Your task to perform on an android device: Do I have any events this weekend? Image 0: 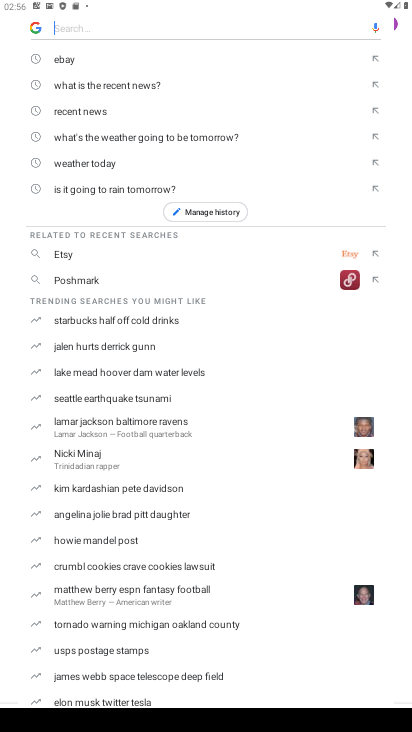
Step 0: press home button
Your task to perform on an android device: Do I have any events this weekend? Image 1: 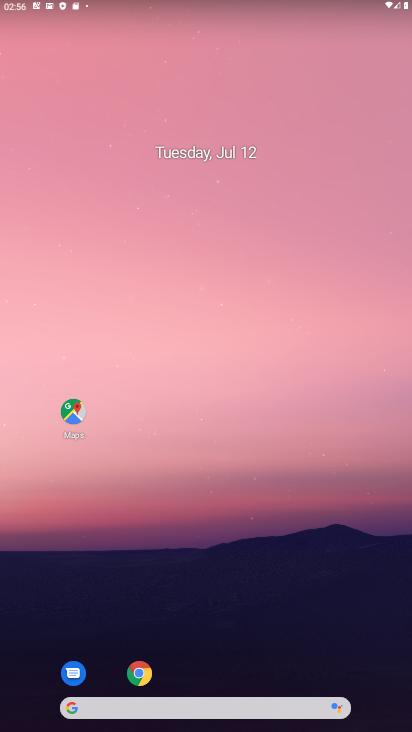
Step 1: drag from (251, 607) to (188, 5)
Your task to perform on an android device: Do I have any events this weekend? Image 2: 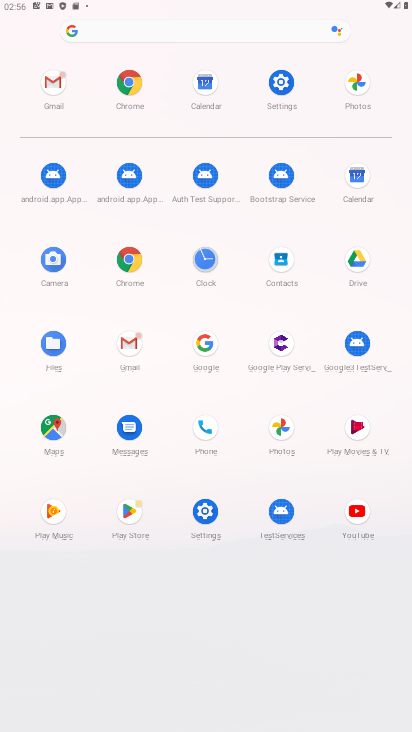
Step 2: click (360, 180)
Your task to perform on an android device: Do I have any events this weekend? Image 3: 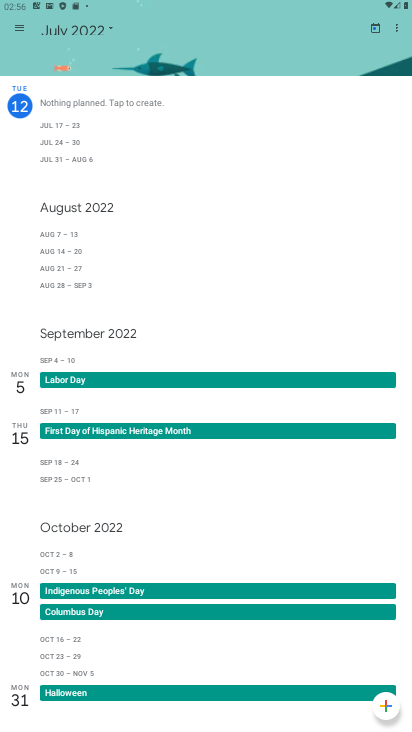
Step 3: click (17, 23)
Your task to perform on an android device: Do I have any events this weekend? Image 4: 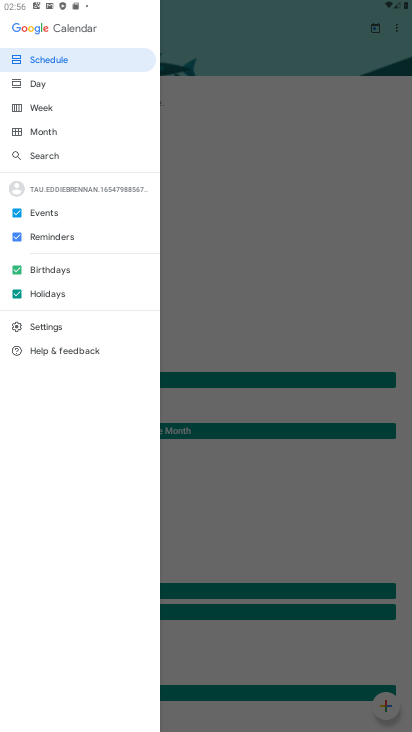
Step 4: click (55, 54)
Your task to perform on an android device: Do I have any events this weekend? Image 5: 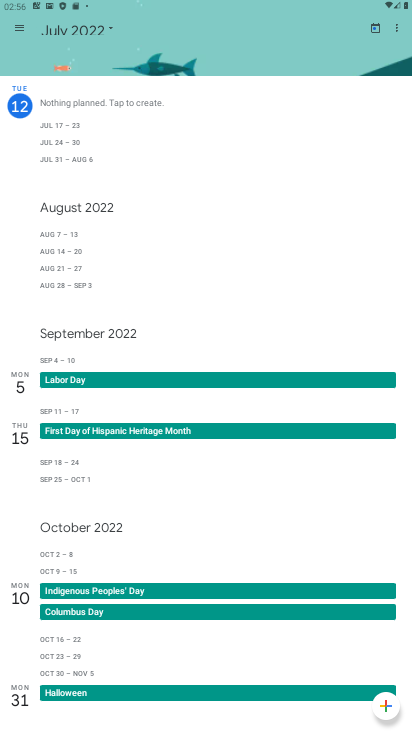
Step 5: click (13, 23)
Your task to perform on an android device: Do I have any events this weekend? Image 6: 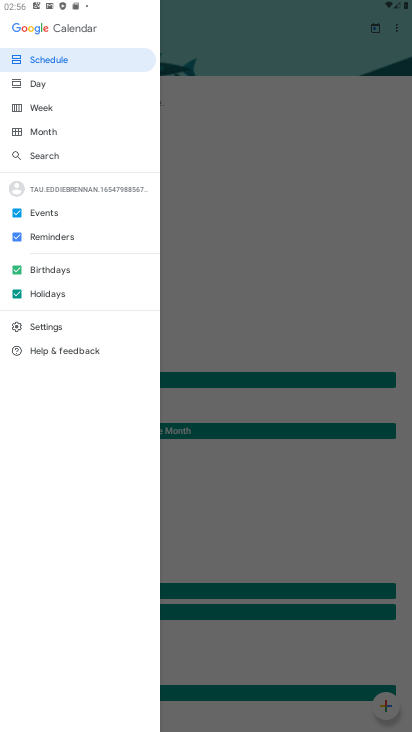
Step 6: click (40, 108)
Your task to perform on an android device: Do I have any events this weekend? Image 7: 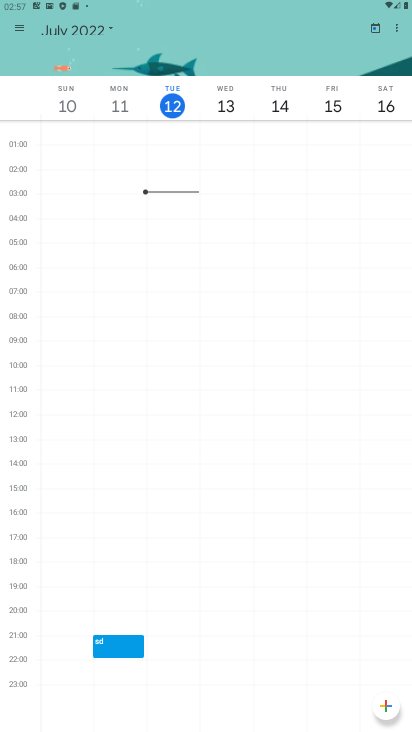
Step 7: task complete